Your task to perform on an android device: change notifications settings Image 0: 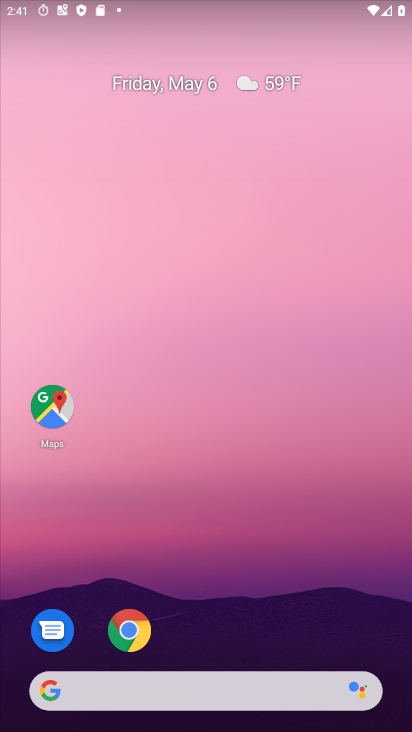
Step 0: drag from (224, 556) to (224, 237)
Your task to perform on an android device: change notifications settings Image 1: 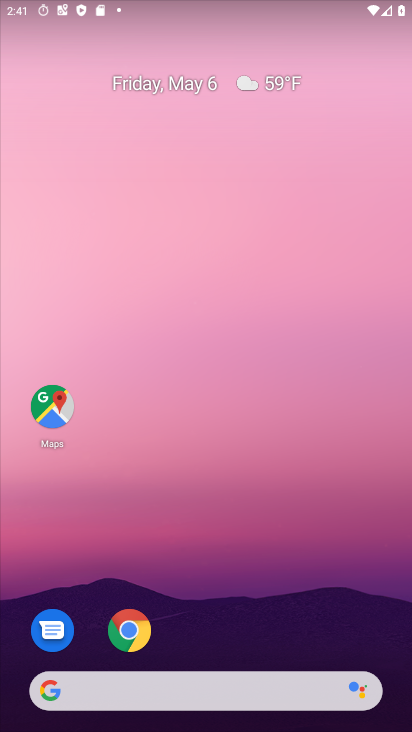
Step 1: drag from (229, 644) to (241, 64)
Your task to perform on an android device: change notifications settings Image 2: 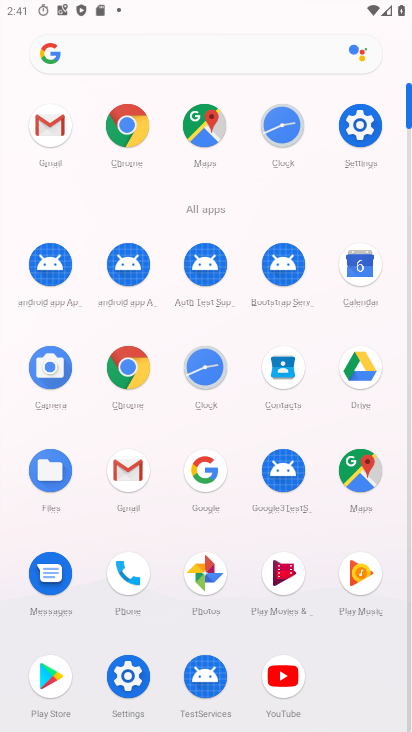
Step 2: click (363, 133)
Your task to perform on an android device: change notifications settings Image 3: 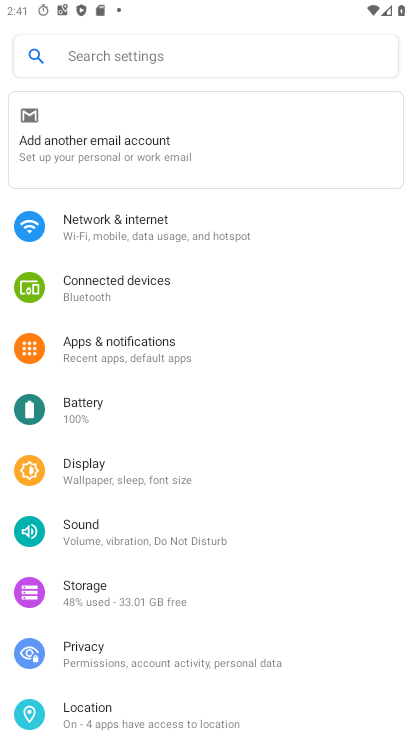
Step 3: click (157, 345)
Your task to perform on an android device: change notifications settings Image 4: 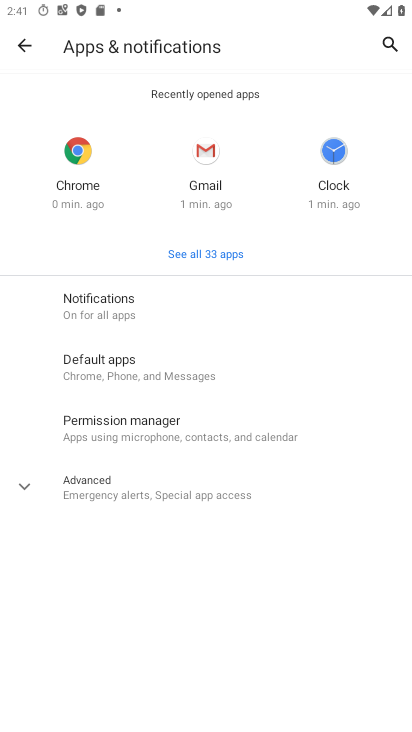
Step 4: click (144, 311)
Your task to perform on an android device: change notifications settings Image 5: 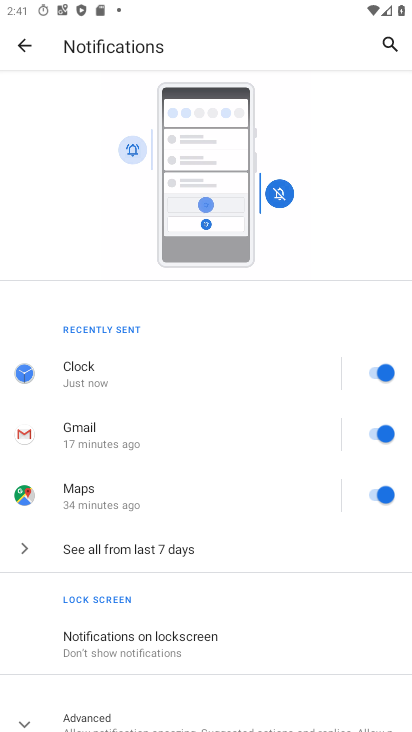
Step 5: drag from (258, 658) to (287, 267)
Your task to perform on an android device: change notifications settings Image 6: 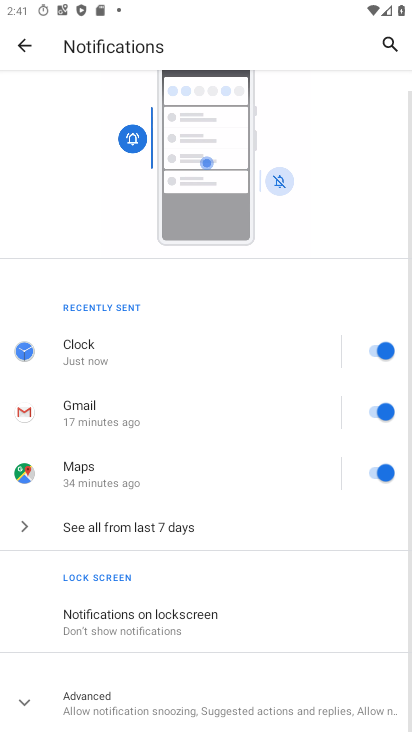
Step 6: drag from (242, 678) to (255, 349)
Your task to perform on an android device: change notifications settings Image 7: 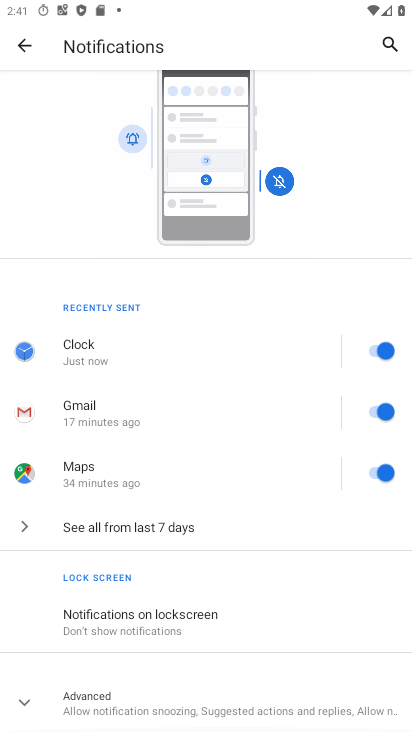
Step 7: drag from (210, 685) to (220, 368)
Your task to perform on an android device: change notifications settings Image 8: 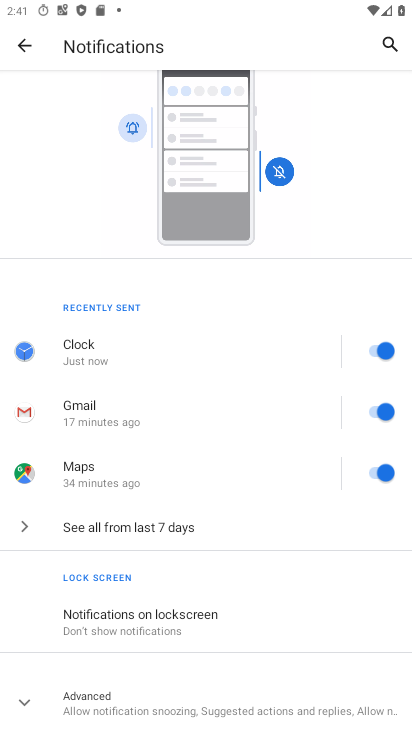
Step 8: click (94, 695)
Your task to perform on an android device: change notifications settings Image 9: 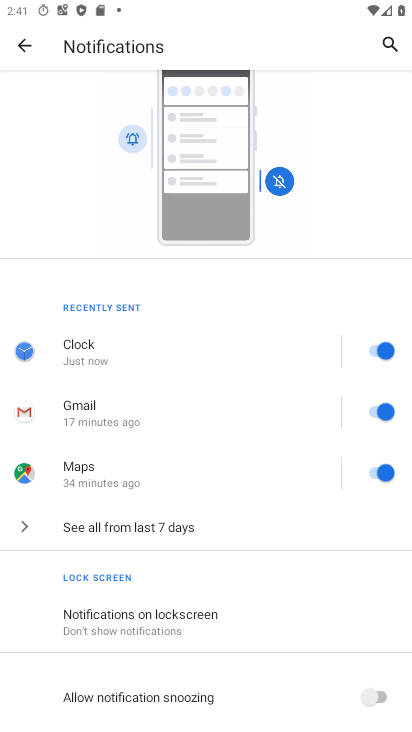
Step 9: task complete